Your task to perform on an android device: toggle wifi Image 0: 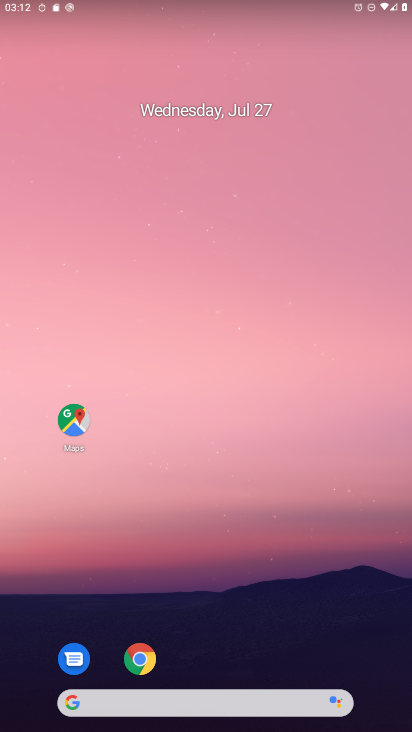
Step 0: drag from (276, 503) to (264, 0)
Your task to perform on an android device: toggle wifi Image 1: 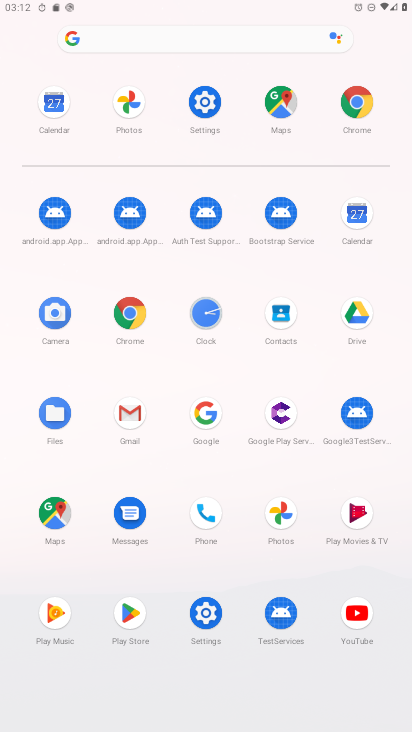
Step 1: click (203, 112)
Your task to perform on an android device: toggle wifi Image 2: 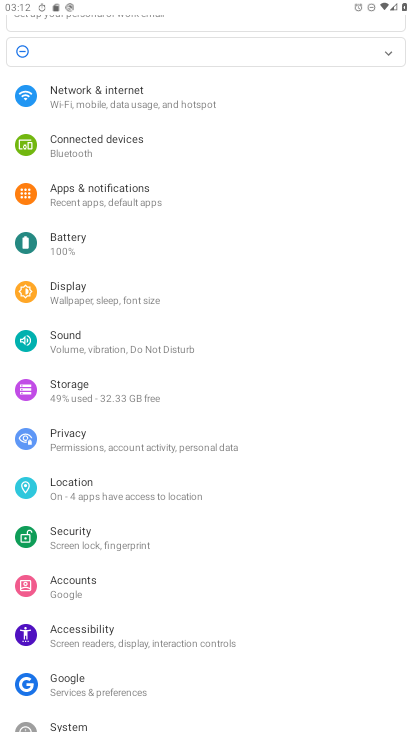
Step 2: click (157, 103)
Your task to perform on an android device: toggle wifi Image 3: 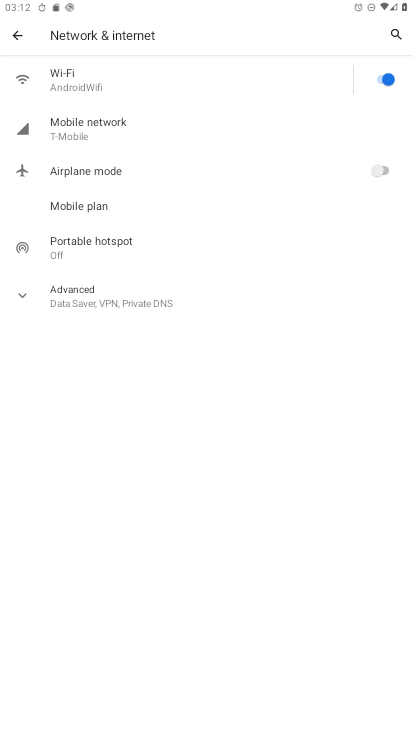
Step 3: click (244, 79)
Your task to perform on an android device: toggle wifi Image 4: 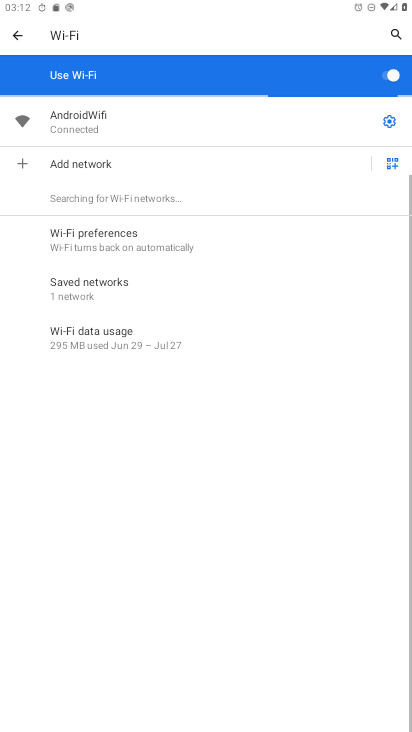
Step 4: click (376, 78)
Your task to perform on an android device: toggle wifi Image 5: 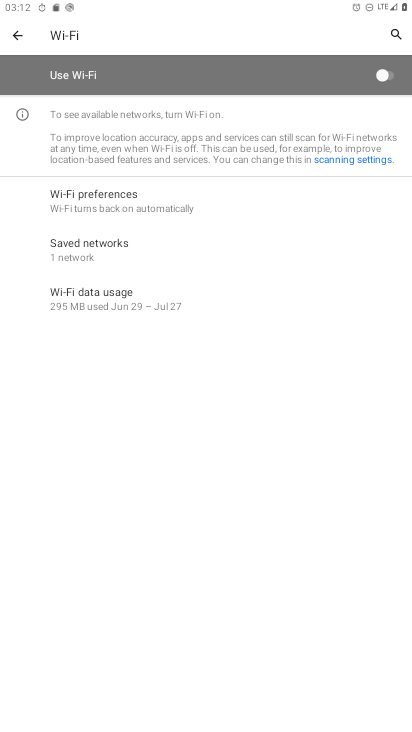
Step 5: task complete